Your task to perform on an android device: What's on my calendar tomorrow? Image 0: 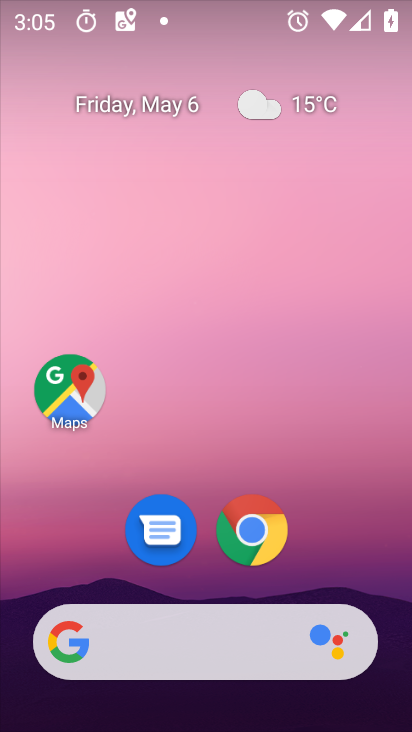
Step 0: drag from (350, 556) to (405, 21)
Your task to perform on an android device: What's on my calendar tomorrow? Image 1: 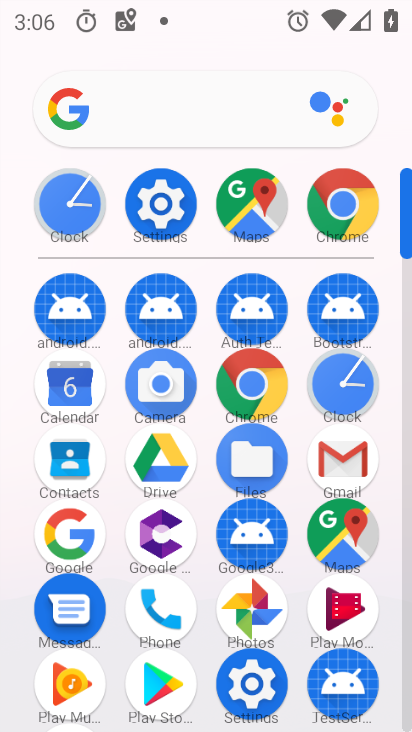
Step 1: click (65, 393)
Your task to perform on an android device: What's on my calendar tomorrow? Image 2: 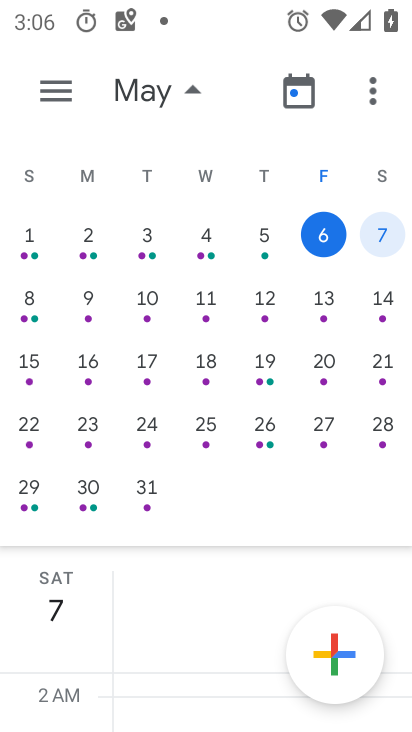
Step 2: click (374, 243)
Your task to perform on an android device: What's on my calendar tomorrow? Image 3: 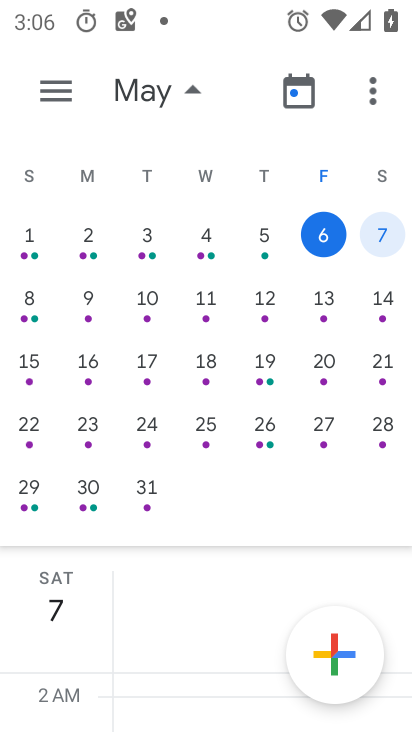
Step 3: task complete